Your task to perform on an android device: Search for the best rated headphones on Amazon Image 0: 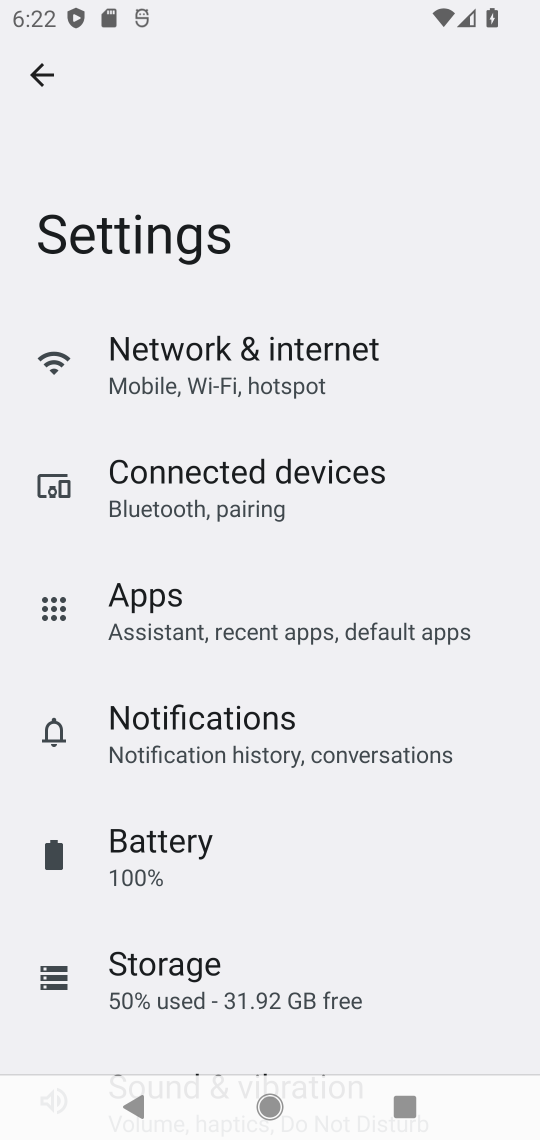
Step 0: press home button
Your task to perform on an android device: Search for the best rated headphones on Amazon Image 1: 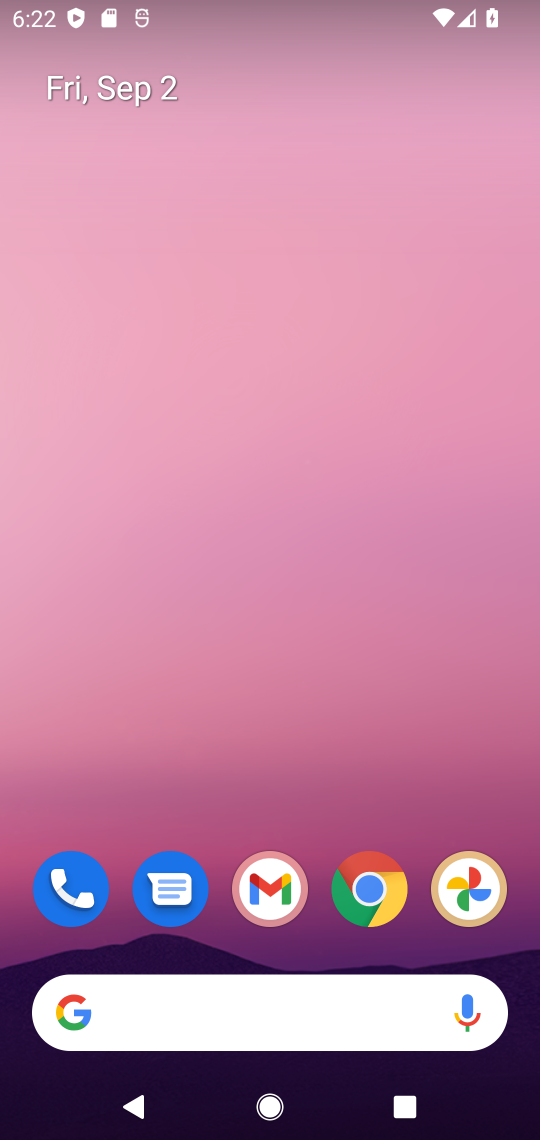
Step 1: click (292, 994)
Your task to perform on an android device: Search for the best rated headphones on Amazon Image 2: 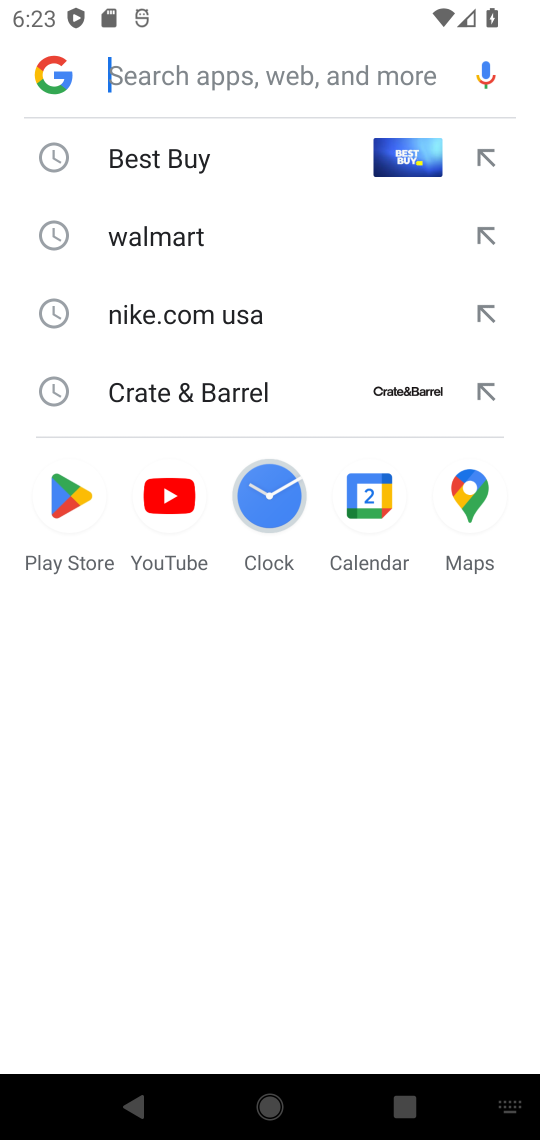
Step 2: type "Amazon"
Your task to perform on an android device: Search for the best rated headphones on Amazon Image 3: 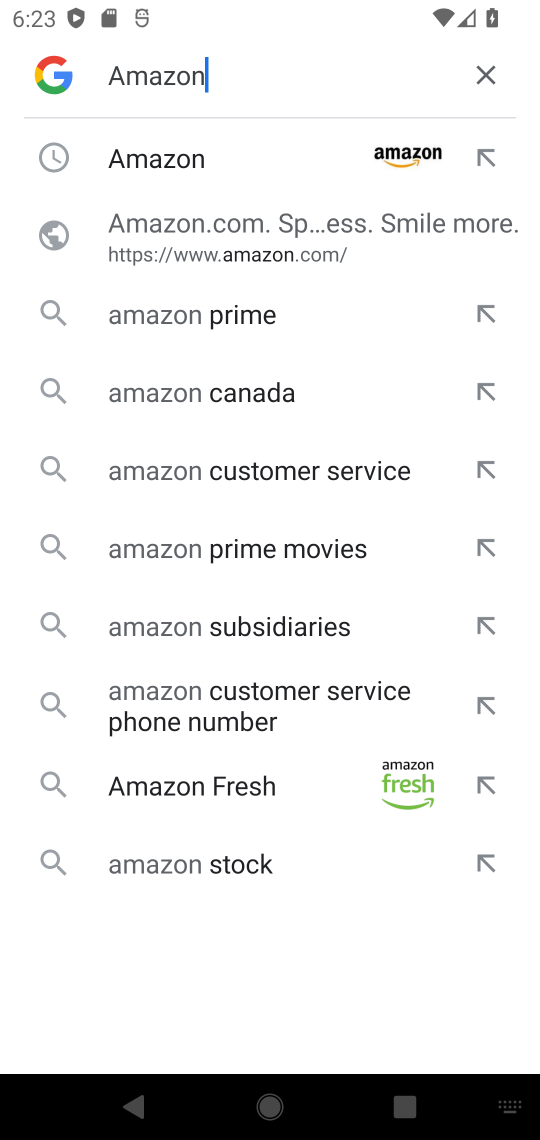
Step 3: click (196, 174)
Your task to perform on an android device: Search for the best rated headphones on Amazon Image 4: 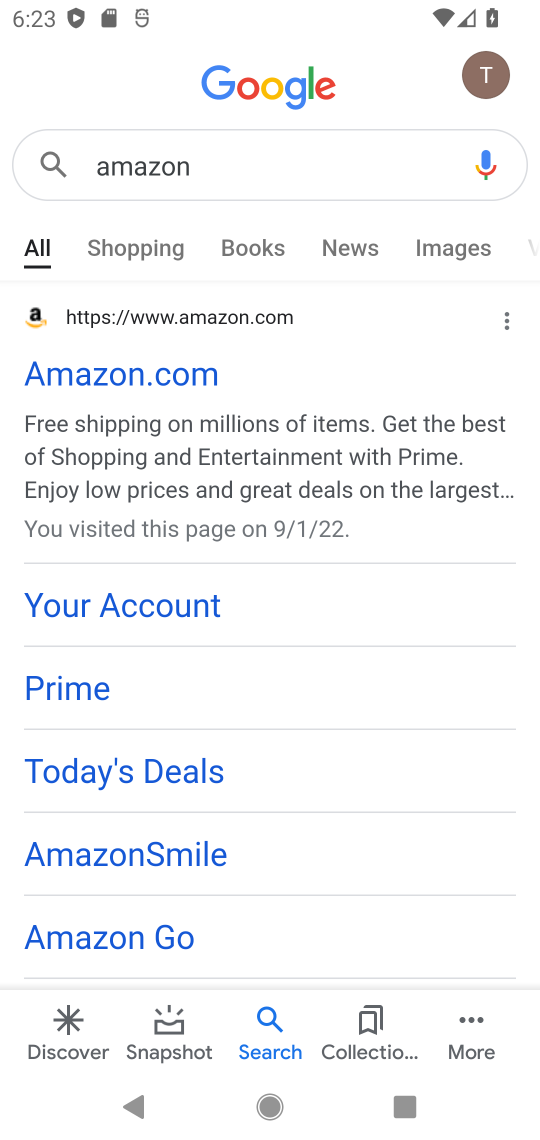
Step 4: click (166, 356)
Your task to perform on an android device: Search for the best rated headphones on Amazon Image 5: 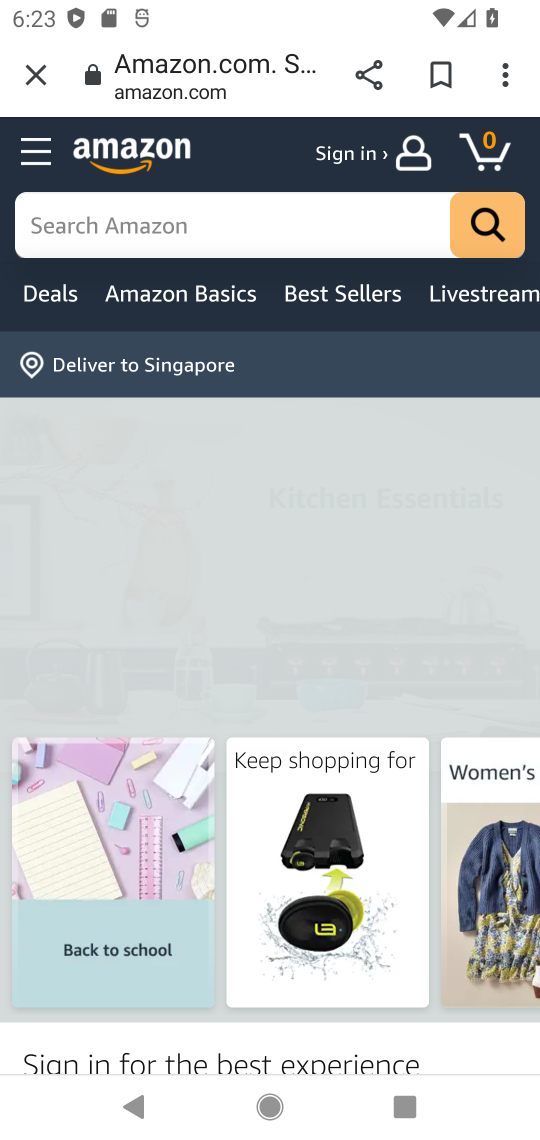
Step 5: click (137, 226)
Your task to perform on an android device: Search for the best rated headphones on Amazon Image 6: 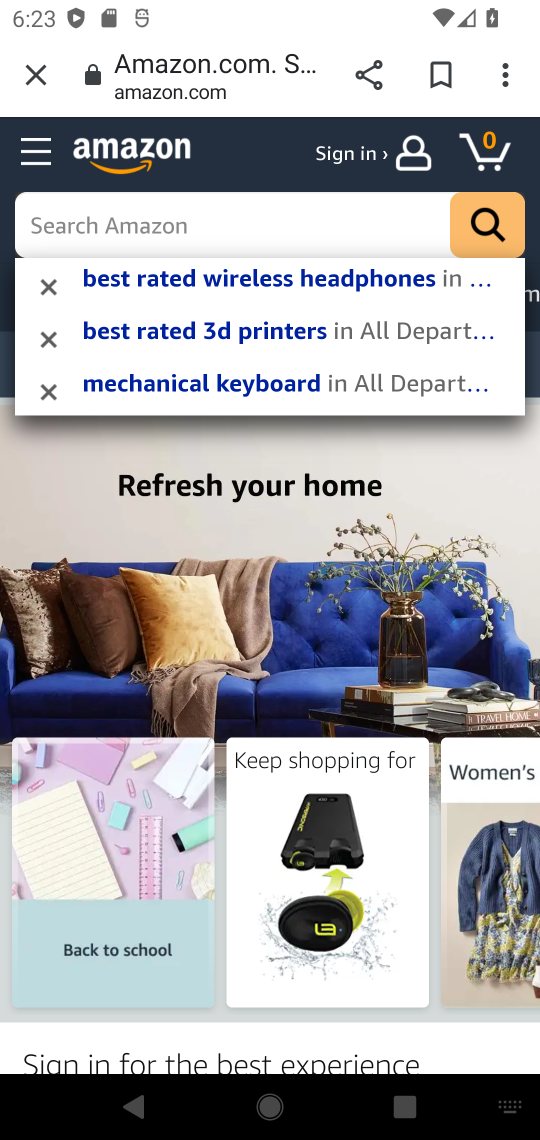
Step 6: type "best rated headphones"
Your task to perform on an android device: Search for the best rated headphones on Amazon Image 7: 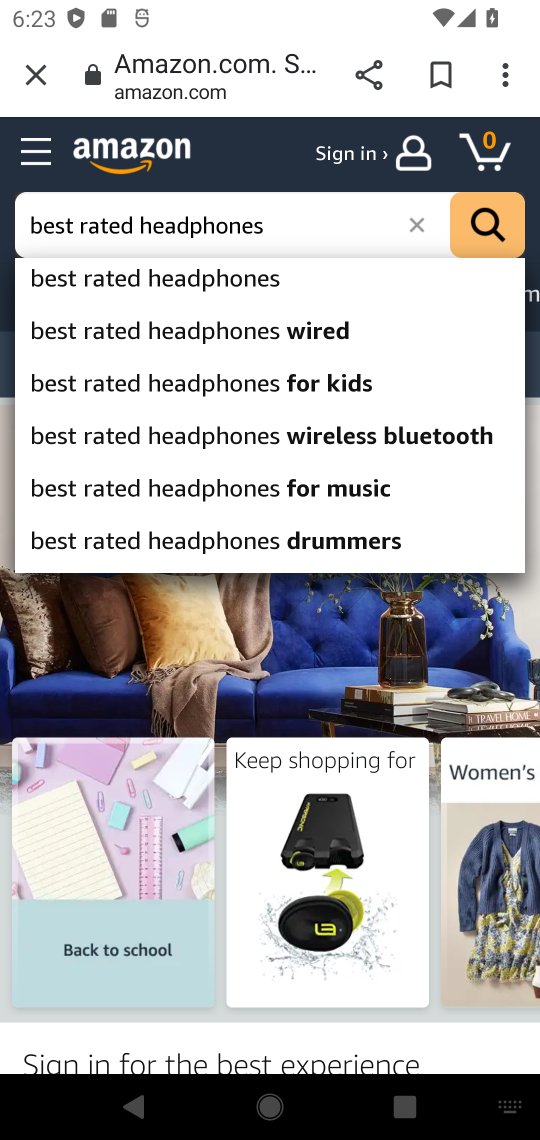
Step 7: click (151, 280)
Your task to perform on an android device: Search for the best rated headphones on Amazon Image 8: 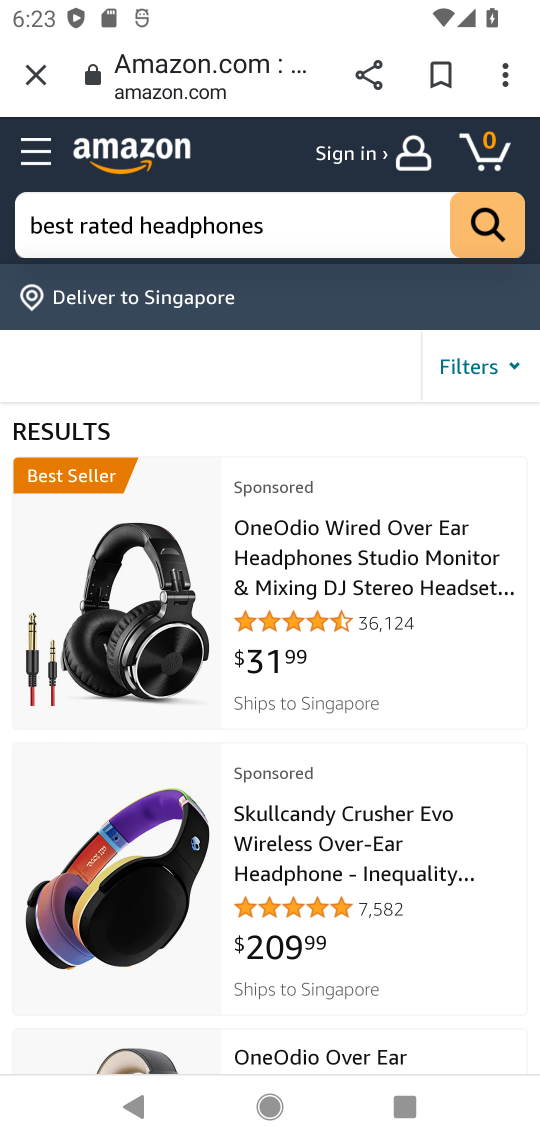
Step 8: task complete